Your task to perform on an android device: Open eBay Image 0: 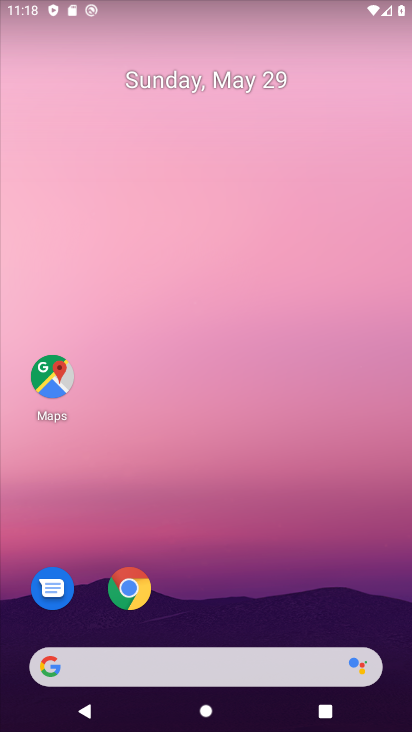
Step 0: drag from (246, 514) to (271, 137)
Your task to perform on an android device: Open eBay Image 1: 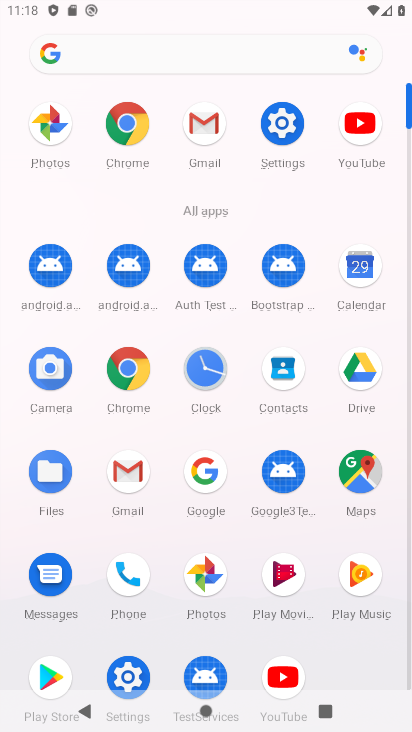
Step 1: click (127, 129)
Your task to perform on an android device: Open eBay Image 2: 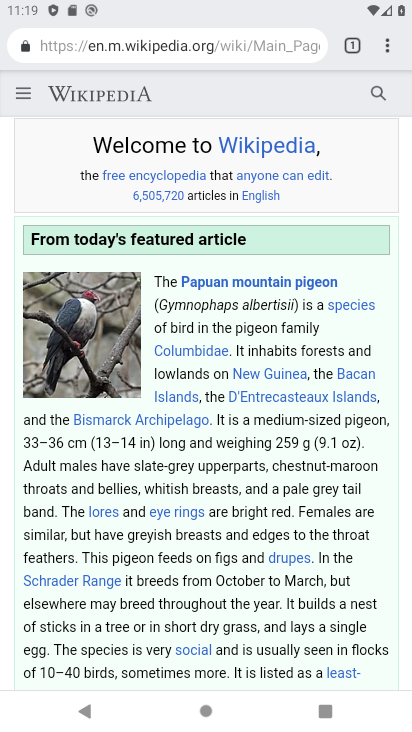
Step 2: click (182, 50)
Your task to perform on an android device: Open eBay Image 3: 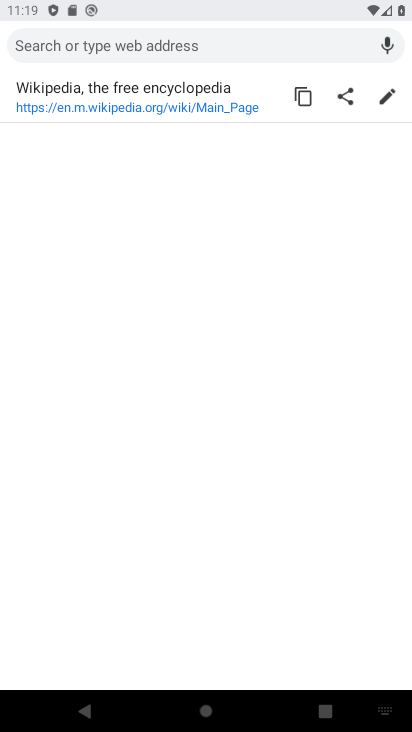
Step 3: type "ebay"
Your task to perform on an android device: Open eBay Image 4: 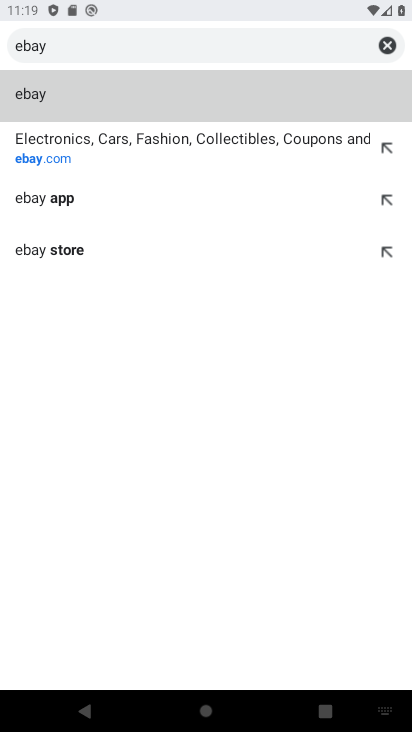
Step 4: click (29, 158)
Your task to perform on an android device: Open eBay Image 5: 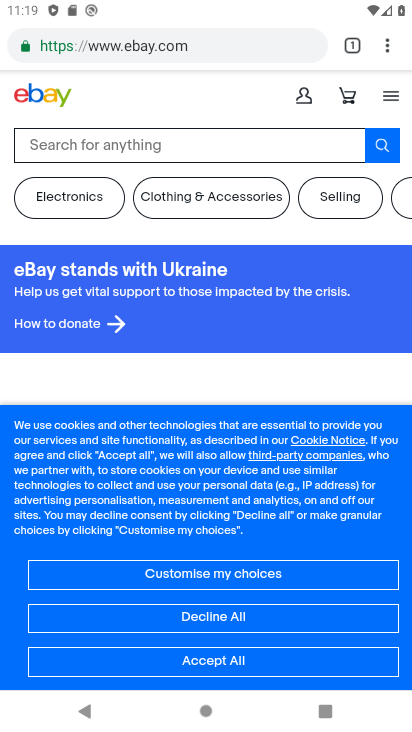
Step 5: task complete